Your task to perform on an android device: turn pop-ups on in chrome Image 0: 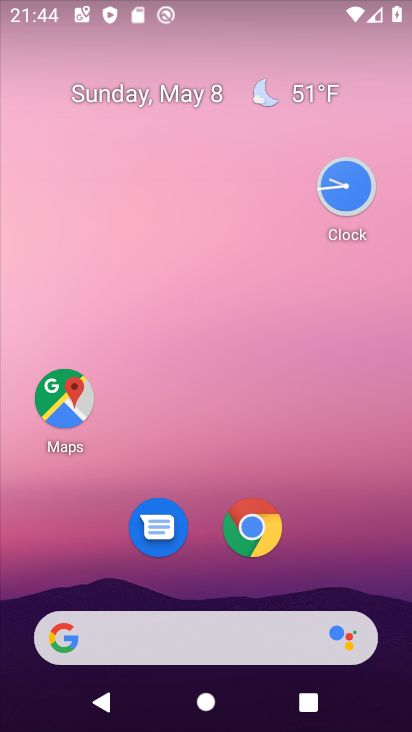
Step 0: click (240, 538)
Your task to perform on an android device: turn pop-ups on in chrome Image 1: 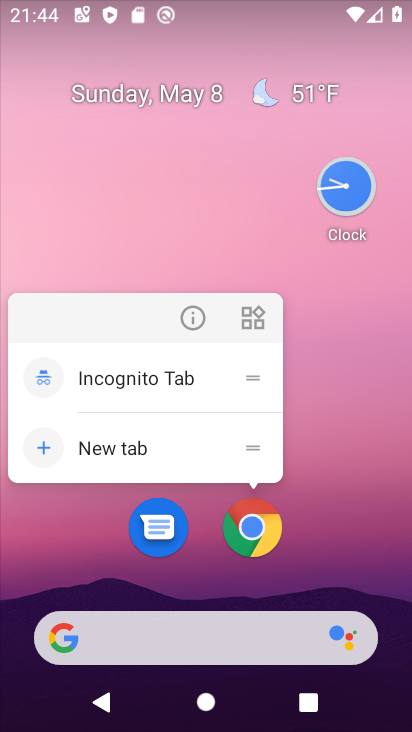
Step 1: click (248, 524)
Your task to perform on an android device: turn pop-ups on in chrome Image 2: 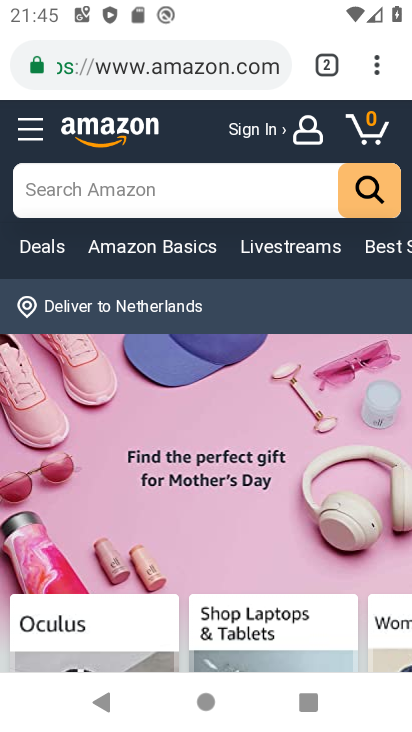
Step 2: click (382, 56)
Your task to perform on an android device: turn pop-ups on in chrome Image 3: 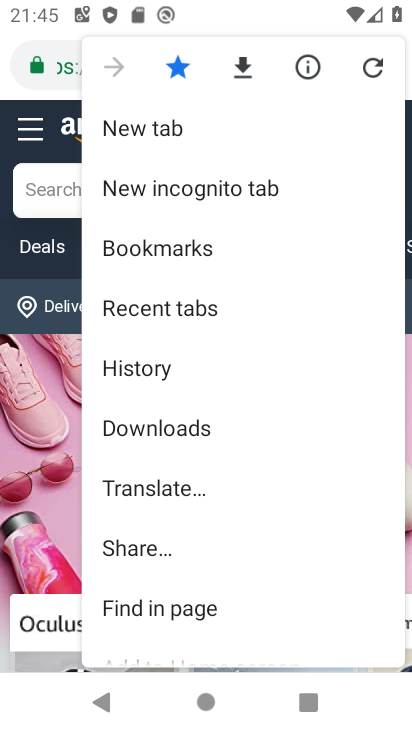
Step 3: drag from (238, 532) to (309, 319)
Your task to perform on an android device: turn pop-ups on in chrome Image 4: 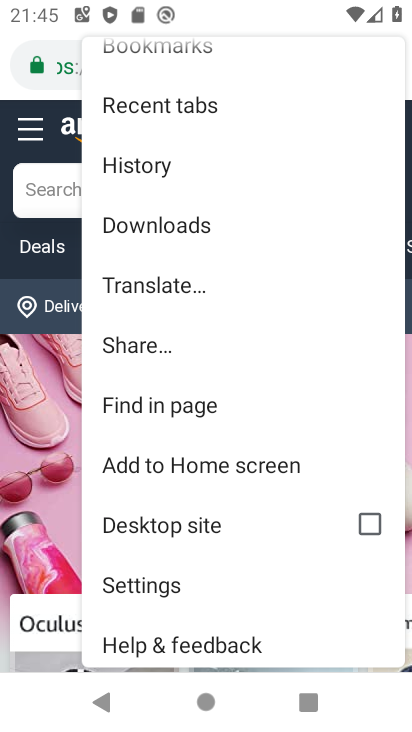
Step 4: drag from (241, 574) to (309, 322)
Your task to perform on an android device: turn pop-ups on in chrome Image 5: 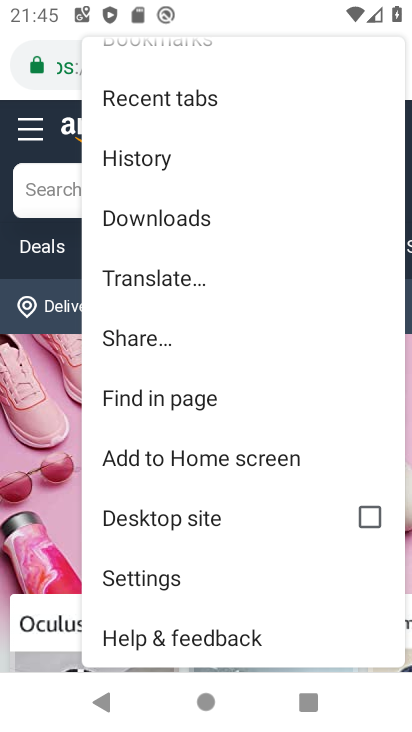
Step 5: click (232, 583)
Your task to perform on an android device: turn pop-ups on in chrome Image 6: 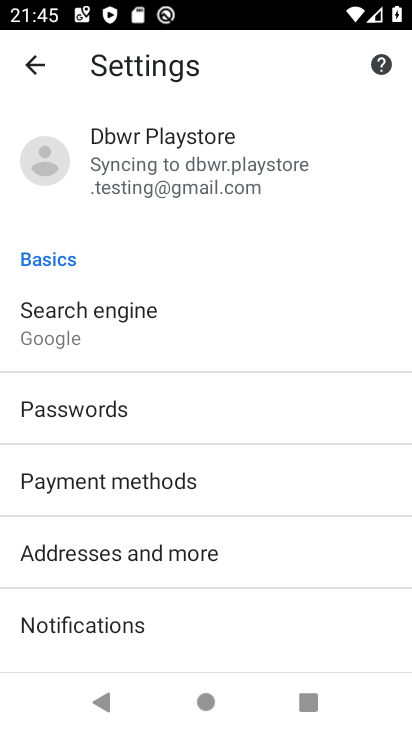
Step 6: drag from (232, 583) to (336, 303)
Your task to perform on an android device: turn pop-ups on in chrome Image 7: 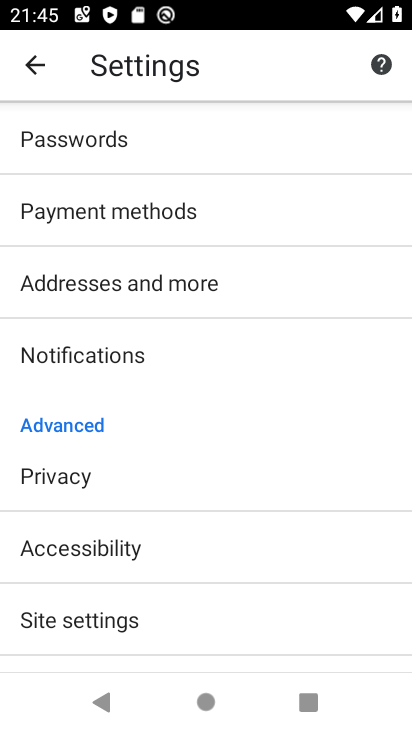
Step 7: drag from (278, 561) to (350, 243)
Your task to perform on an android device: turn pop-ups on in chrome Image 8: 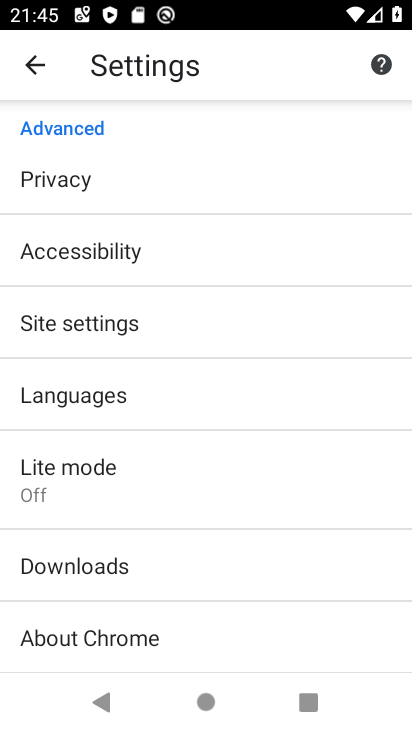
Step 8: click (288, 324)
Your task to perform on an android device: turn pop-ups on in chrome Image 9: 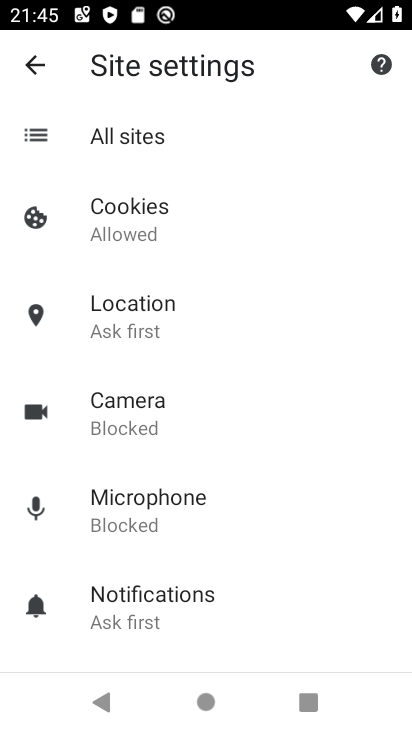
Step 9: drag from (265, 533) to (313, 217)
Your task to perform on an android device: turn pop-ups on in chrome Image 10: 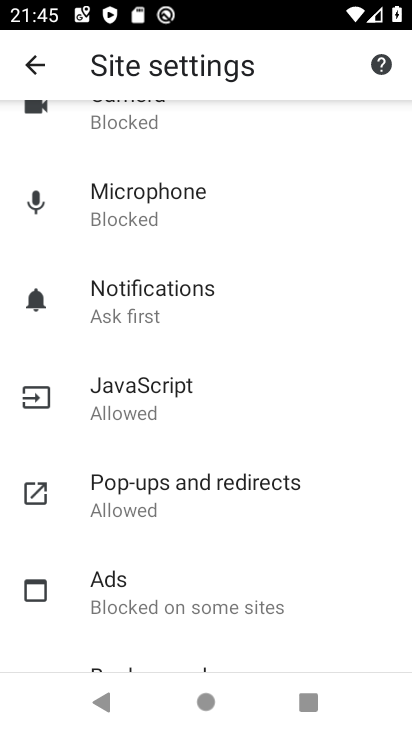
Step 10: click (269, 484)
Your task to perform on an android device: turn pop-ups on in chrome Image 11: 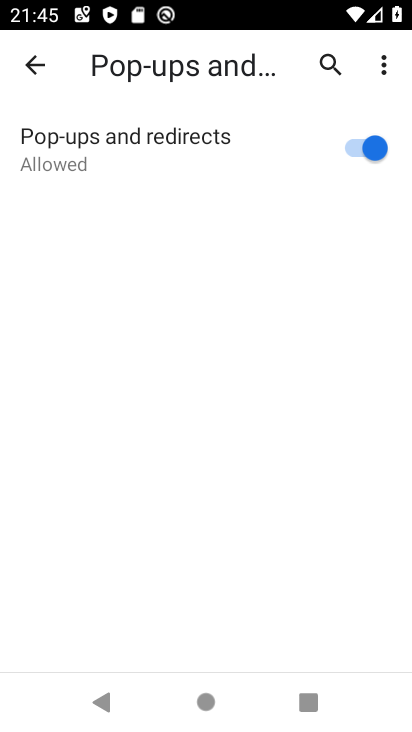
Step 11: task complete